Your task to perform on an android device: move an email to a new category in the gmail app Image 0: 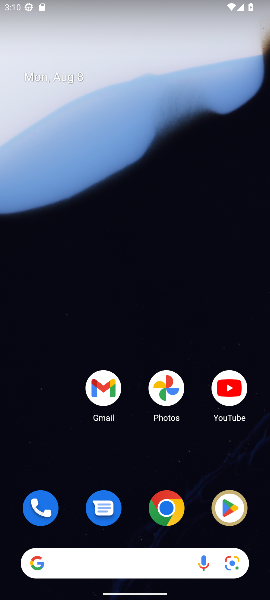
Step 0: click (106, 389)
Your task to perform on an android device: move an email to a new category in the gmail app Image 1: 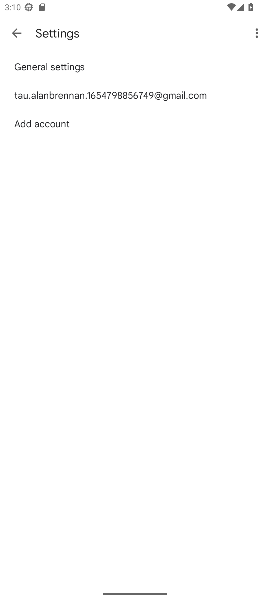
Step 1: click (16, 34)
Your task to perform on an android device: move an email to a new category in the gmail app Image 2: 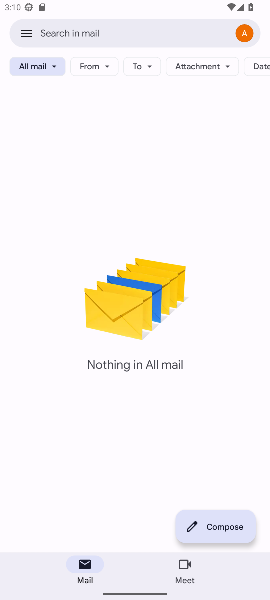
Step 2: task complete